Your task to perform on an android device: Open privacy settings Image 0: 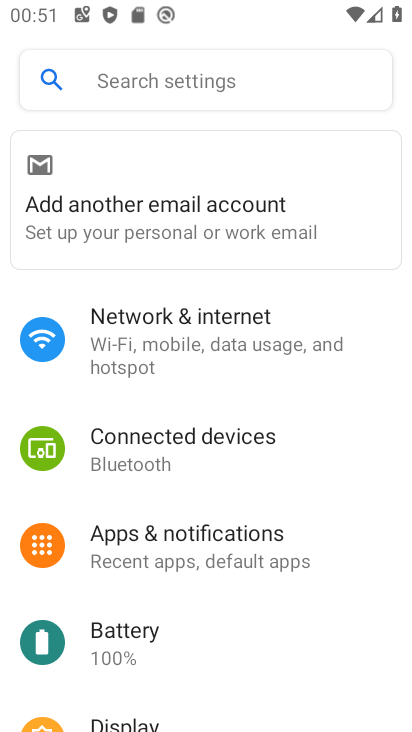
Step 0: drag from (158, 493) to (111, 208)
Your task to perform on an android device: Open privacy settings Image 1: 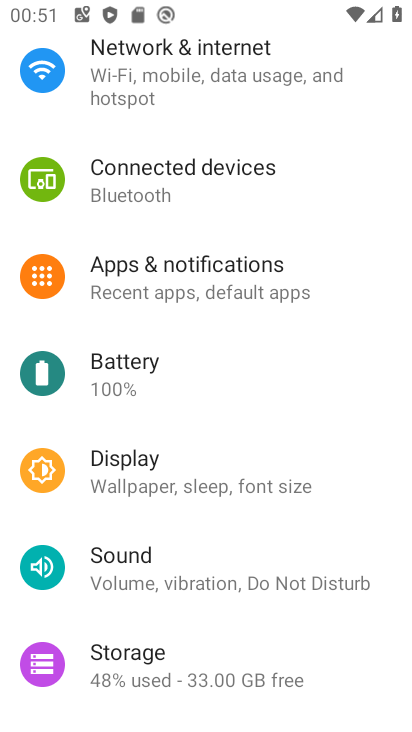
Step 1: drag from (175, 535) to (160, 313)
Your task to perform on an android device: Open privacy settings Image 2: 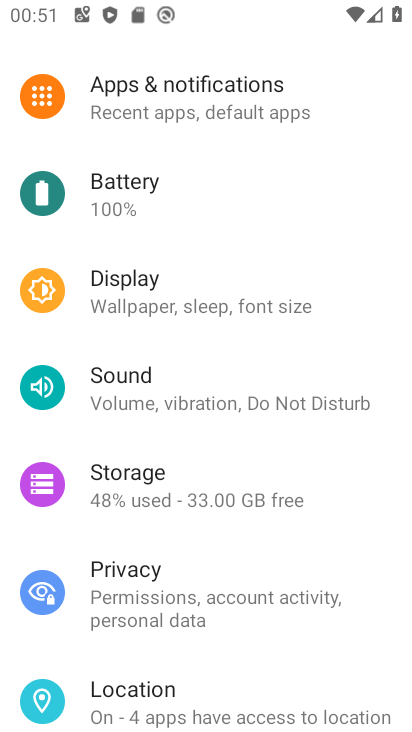
Step 2: click (181, 592)
Your task to perform on an android device: Open privacy settings Image 3: 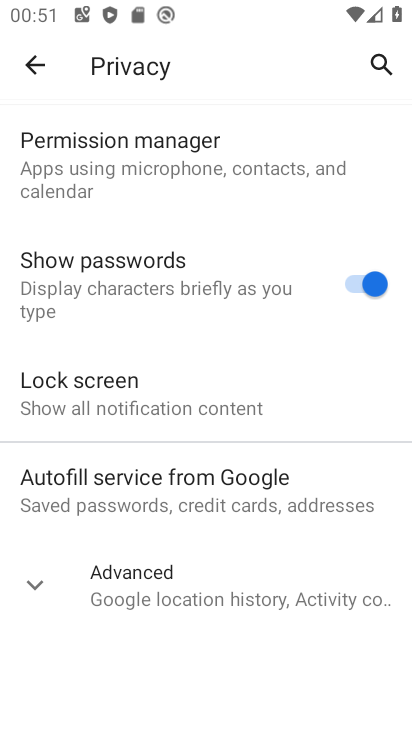
Step 3: task complete